Your task to perform on an android device: Is it going to rain this weekend? Image 0: 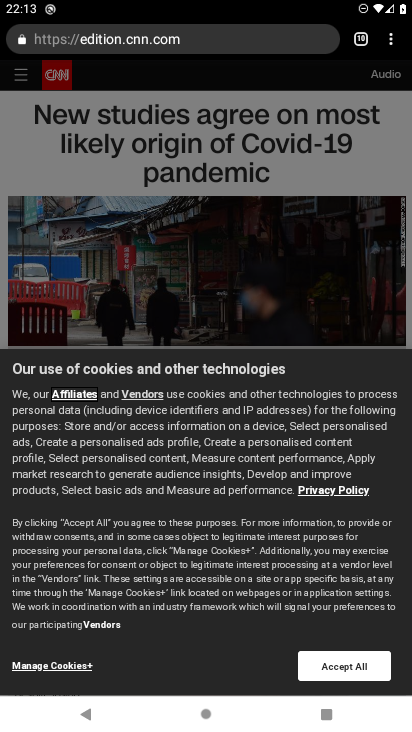
Step 0: press home button
Your task to perform on an android device: Is it going to rain this weekend? Image 1: 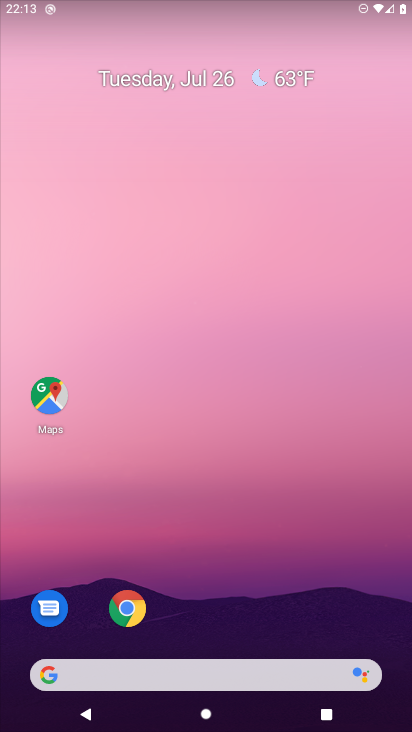
Step 1: click (133, 662)
Your task to perform on an android device: Is it going to rain this weekend? Image 2: 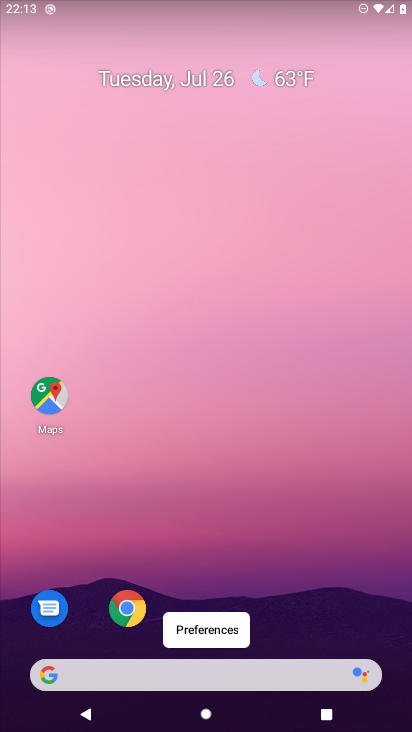
Step 2: click (99, 673)
Your task to perform on an android device: Is it going to rain this weekend? Image 3: 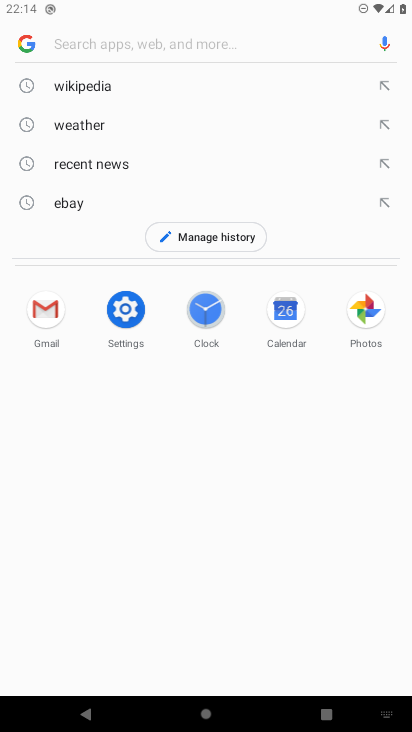
Step 3: type "Is it going to rain this weekend?"
Your task to perform on an android device: Is it going to rain this weekend? Image 4: 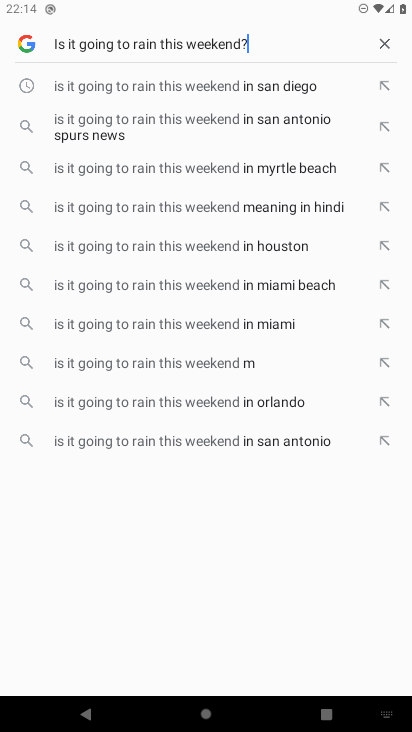
Step 4: type ""
Your task to perform on an android device: Is it going to rain this weekend? Image 5: 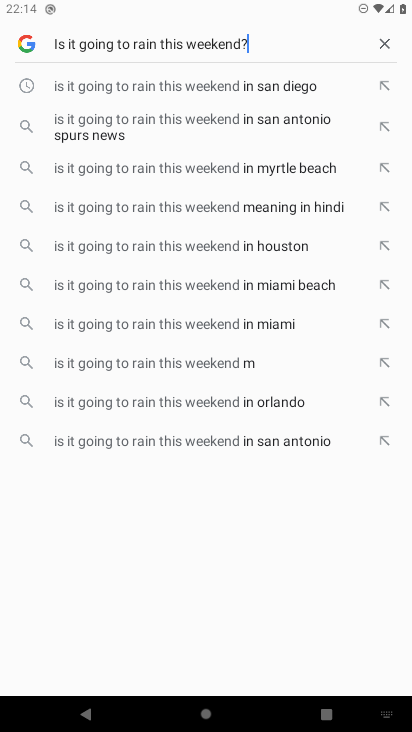
Step 5: task complete